Your task to perform on an android device: toggle notifications settings in the gmail app Image 0: 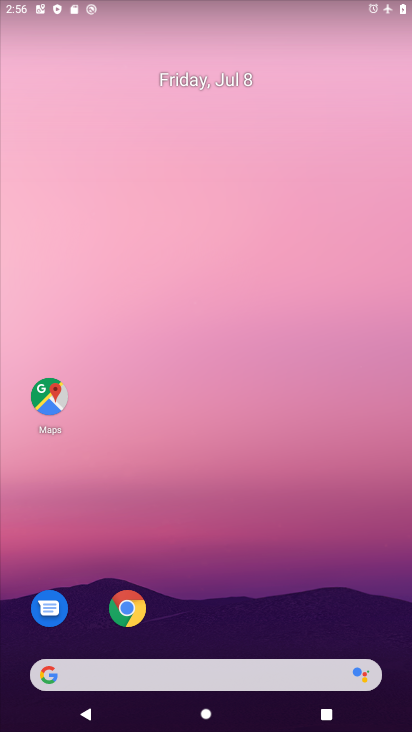
Step 0: drag from (338, 670) to (261, 30)
Your task to perform on an android device: toggle notifications settings in the gmail app Image 1: 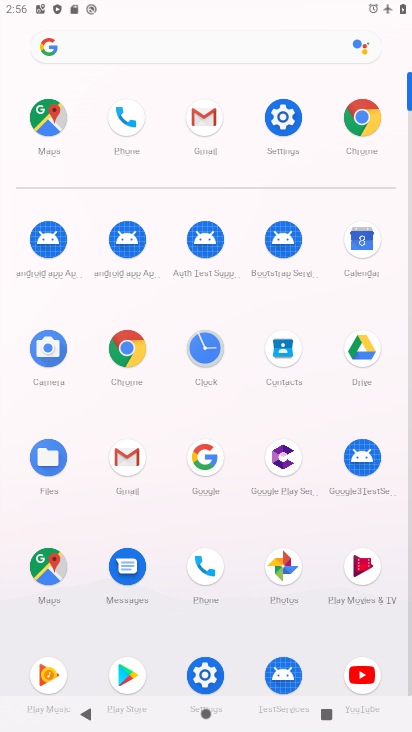
Step 1: click (127, 452)
Your task to perform on an android device: toggle notifications settings in the gmail app Image 2: 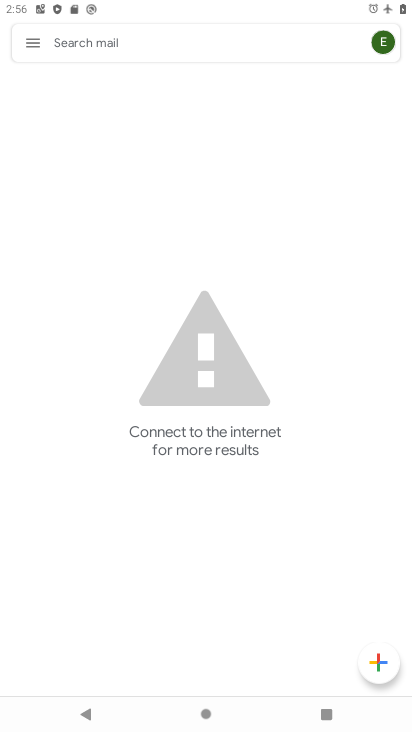
Step 2: click (36, 39)
Your task to perform on an android device: toggle notifications settings in the gmail app Image 3: 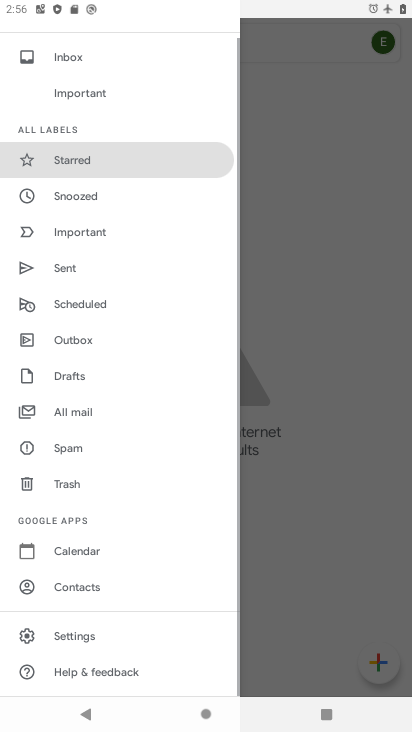
Step 3: click (123, 638)
Your task to perform on an android device: toggle notifications settings in the gmail app Image 4: 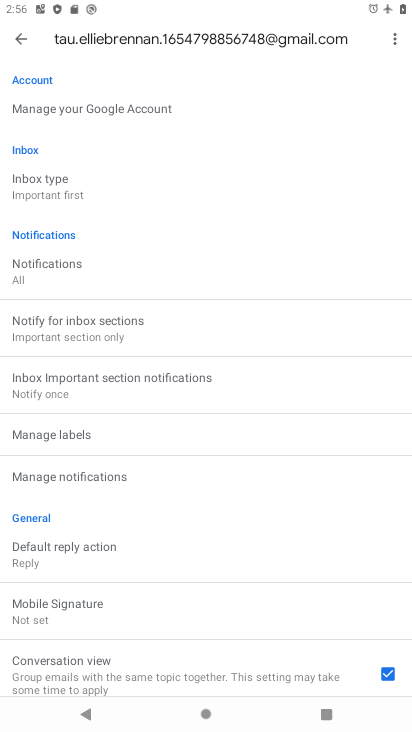
Step 4: click (95, 479)
Your task to perform on an android device: toggle notifications settings in the gmail app Image 5: 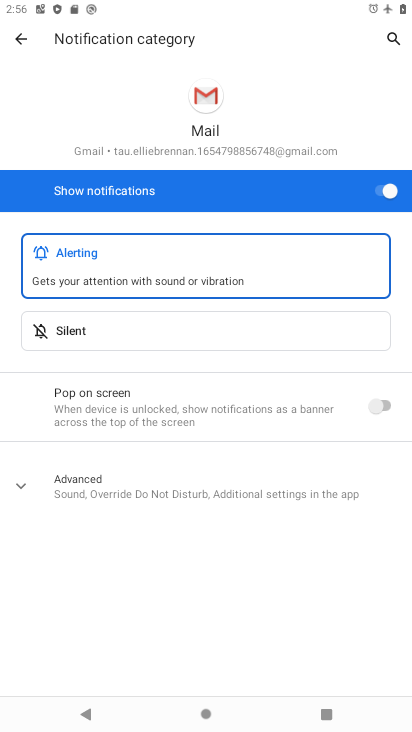
Step 5: click (381, 192)
Your task to perform on an android device: toggle notifications settings in the gmail app Image 6: 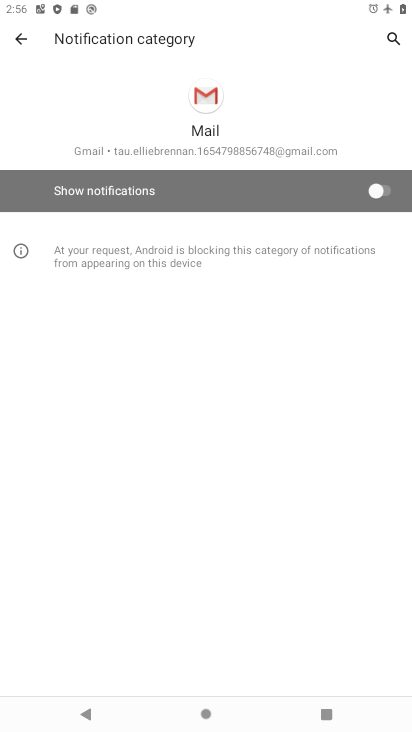
Step 6: task complete